Your task to perform on an android device: turn on translation in the chrome app Image 0: 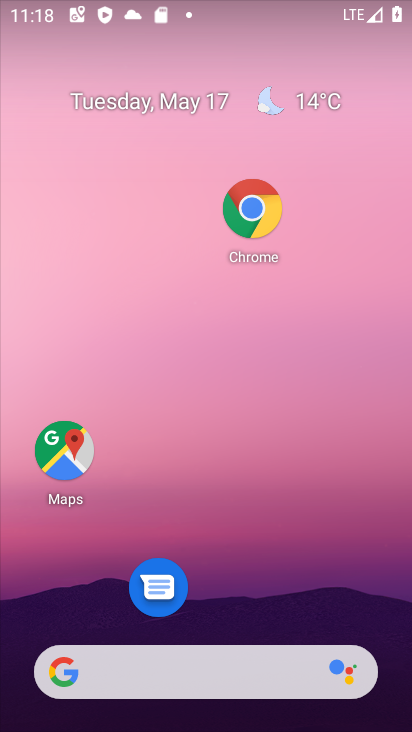
Step 0: click (257, 211)
Your task to perform on an android device: turn on translation in the chrome app Image 1: 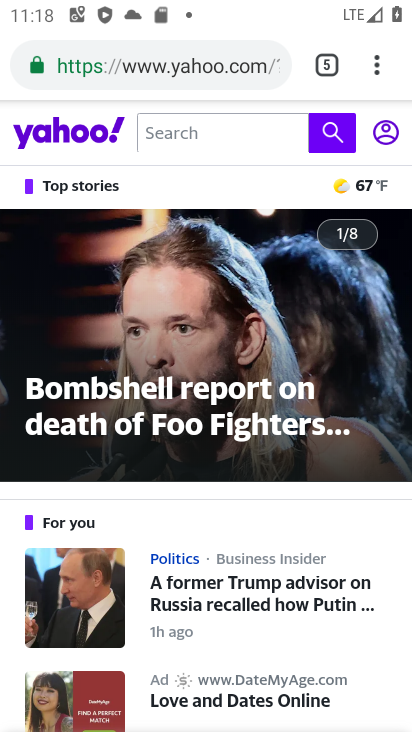
Step 1: click (387, 62)
Your task to perform on an android device: turn on translation in the chrome app Image 2: 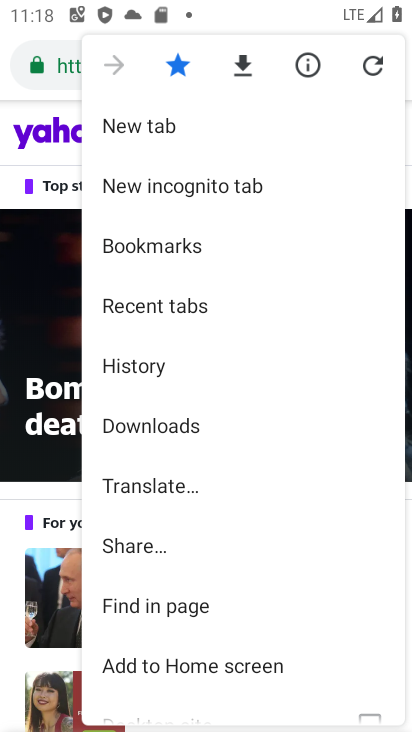
Step 2: drag from (193, 663) to (235, 299)
Your task to perform on an android device: turn on translation in the chrome app Image 3: 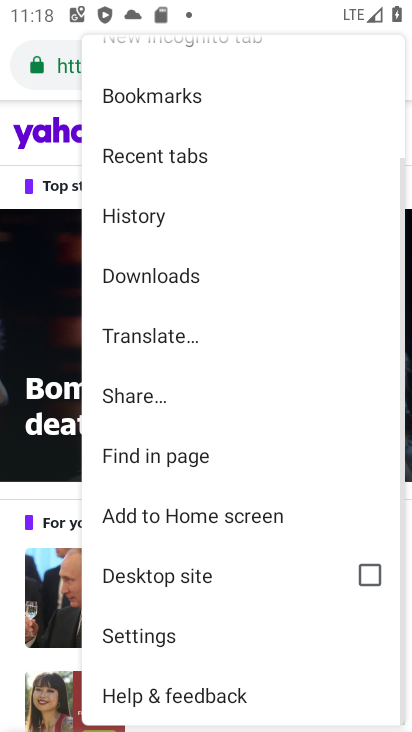
Step 3: click (171, 626)
Your task to perform on an android device: turn on translation in the chrome app Image 4: 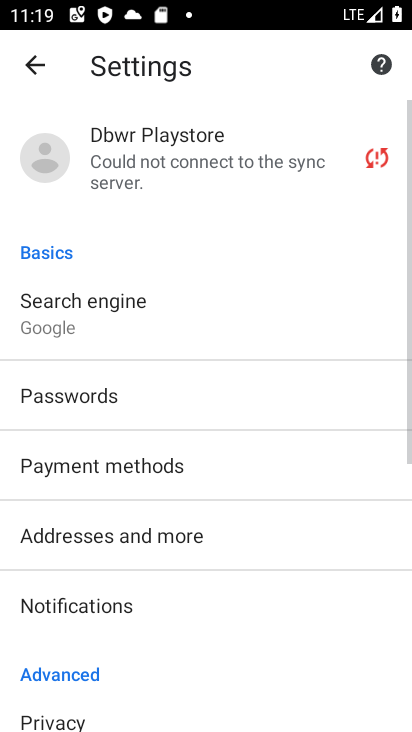
Step 4: drag from (212, 599) to (229, 132)
Your task to perform on an android device: turn on translation in the chrome app Image 5: 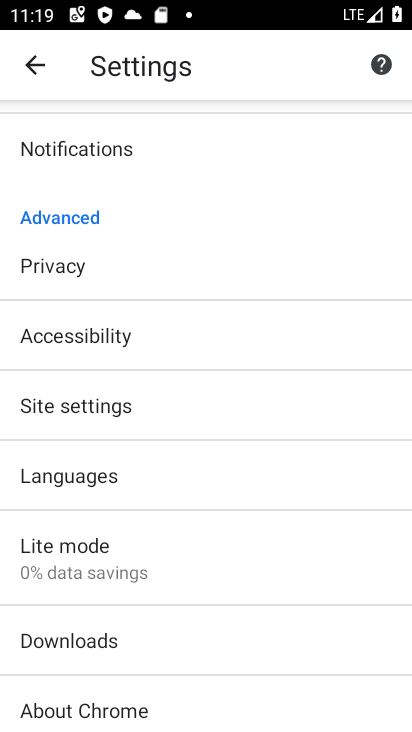
Step 5: click (133, 484)
Your task to perform on an android device: turn on translation in the chrome app Image 6: 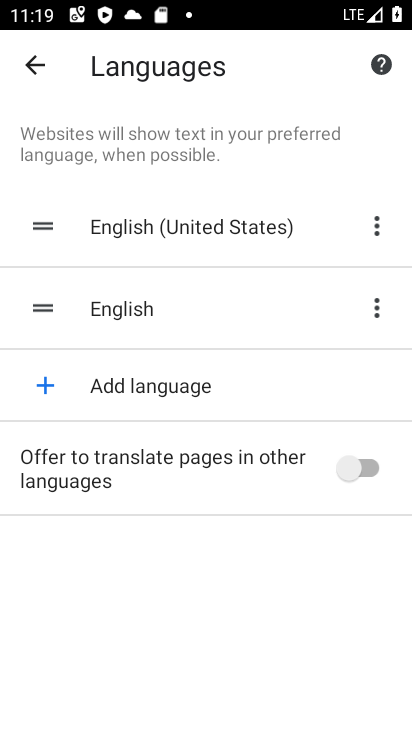
Step 6: click (375, 461)
Your task to perform on an android device: turn on translation in the chrome app Image 7: 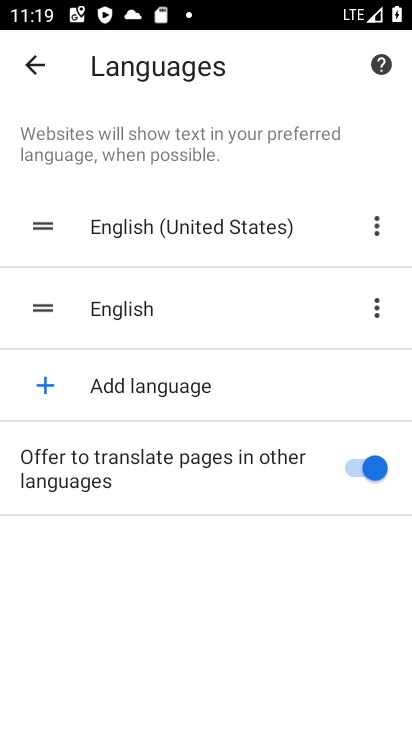
Step 7: task complete